Your task to perform on an android device: check the backup settings in the google photos Image 0: 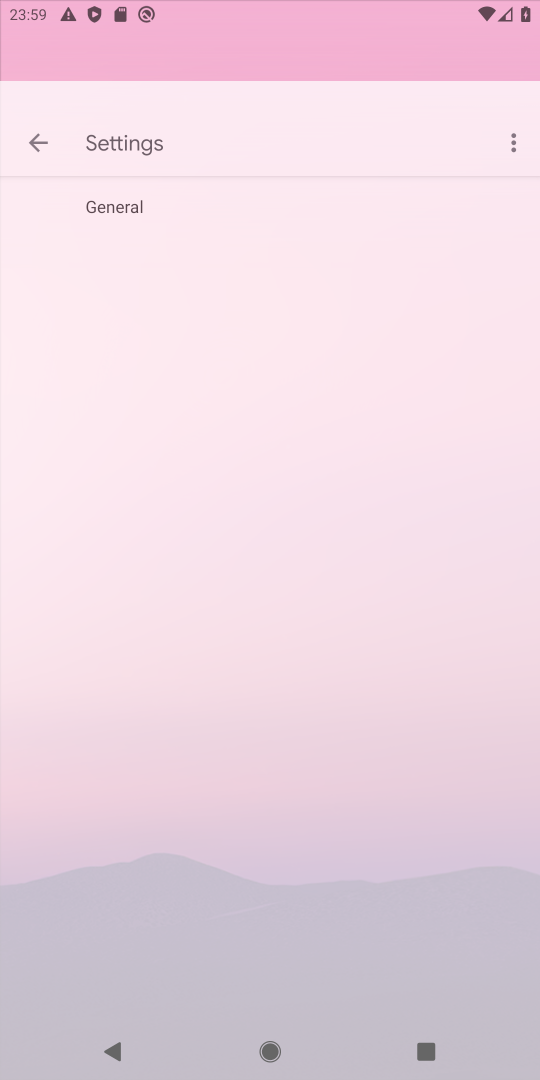
Step 0: click (256, 104)
Your task to perform on an android device: check the backup settings in the google photos Image 1: 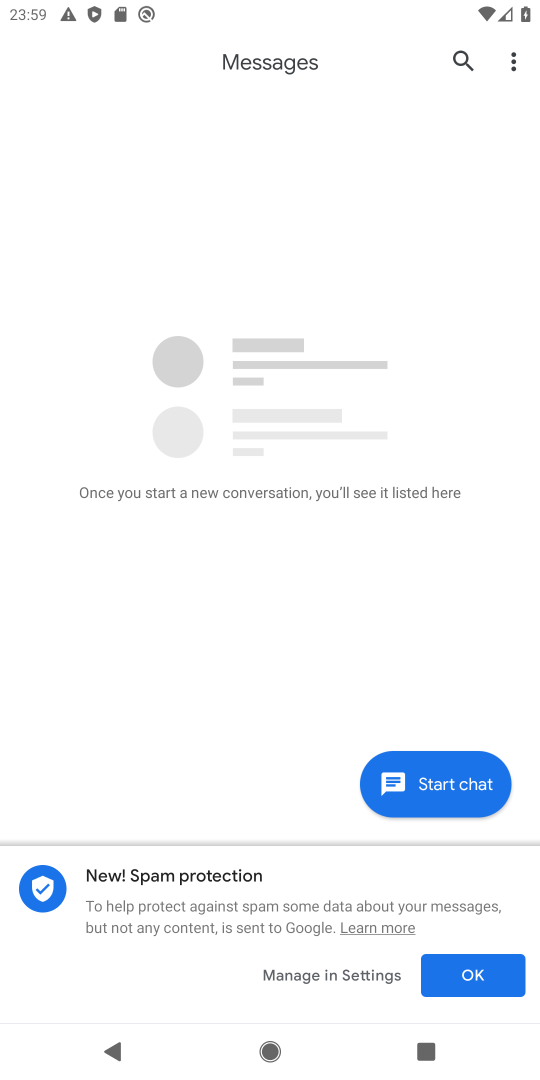
Step 1: press home button
Your task to perform on an android device: check the backup settings in the google photos Image 2: 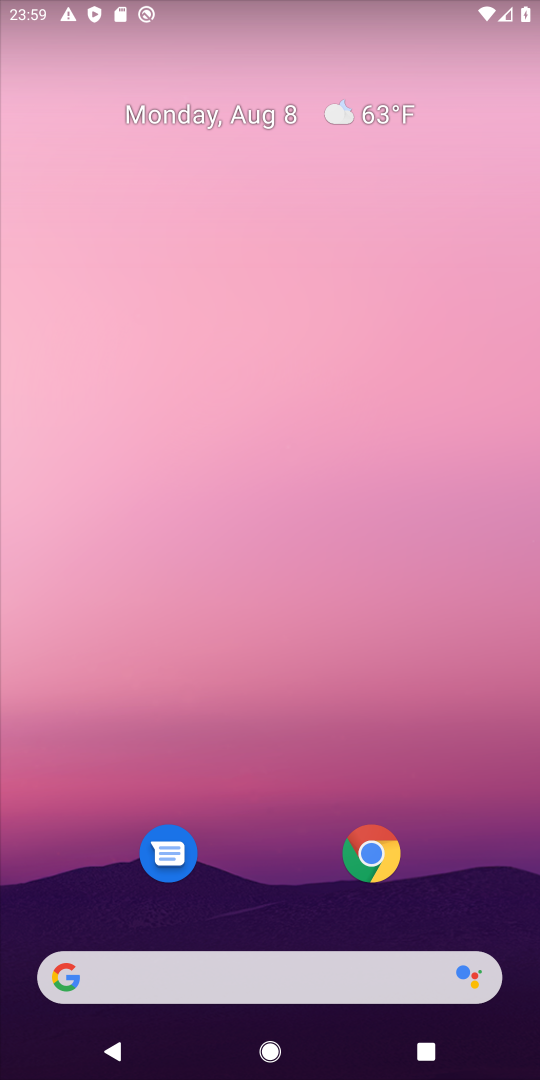
Step 2: drag from (226, 456) to (219, 231)
Your task to perform on an android device: check the backup settings in the google photos Image 3: 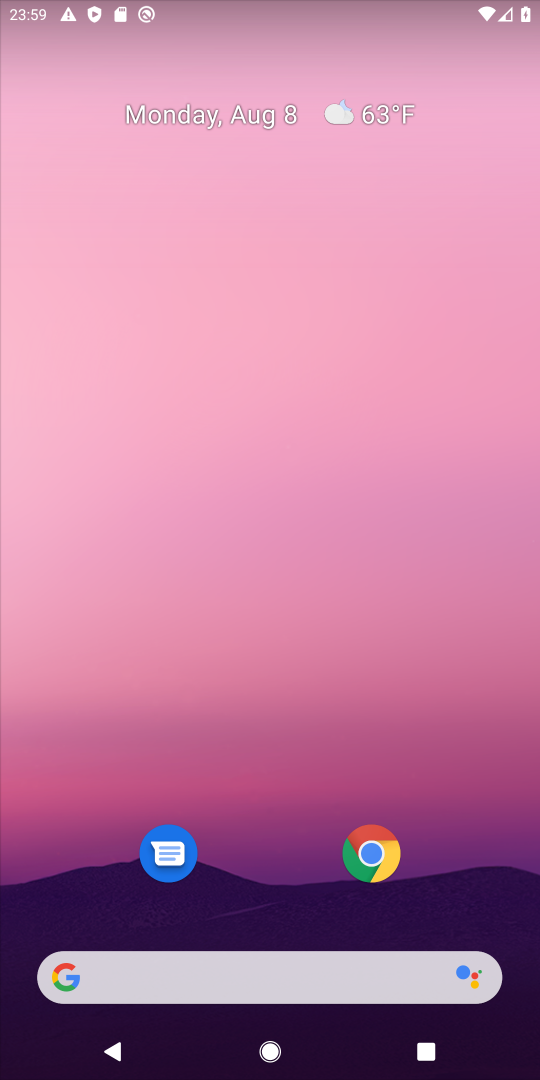
Step 3: drag from (271, 821) to (221, 157)
Your task to perform on an android device: check the backup settings in the google photos Image 4: 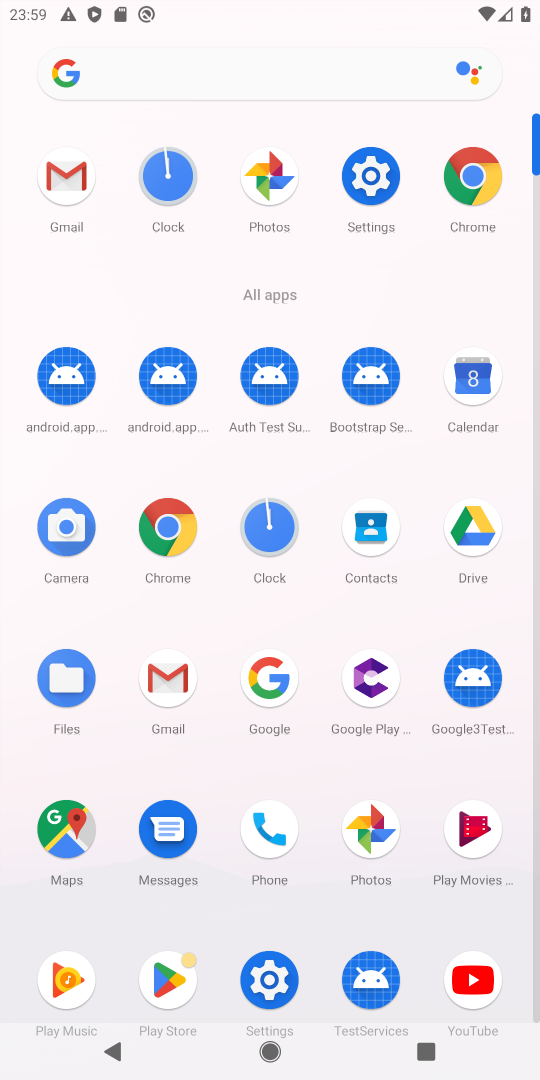
Step 4: click (263, 187)
Your task to perform on an android device: check the backup settings in the google photos Image 5: 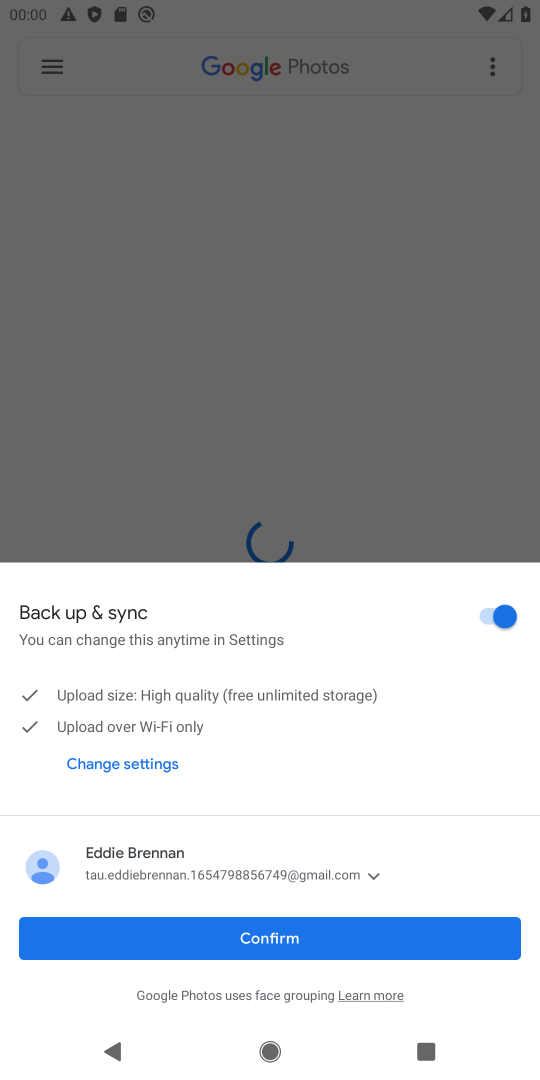
Step 5: click (331, 925)
Your task to perform on an android device: check the backup settings in the google photos Image 6: 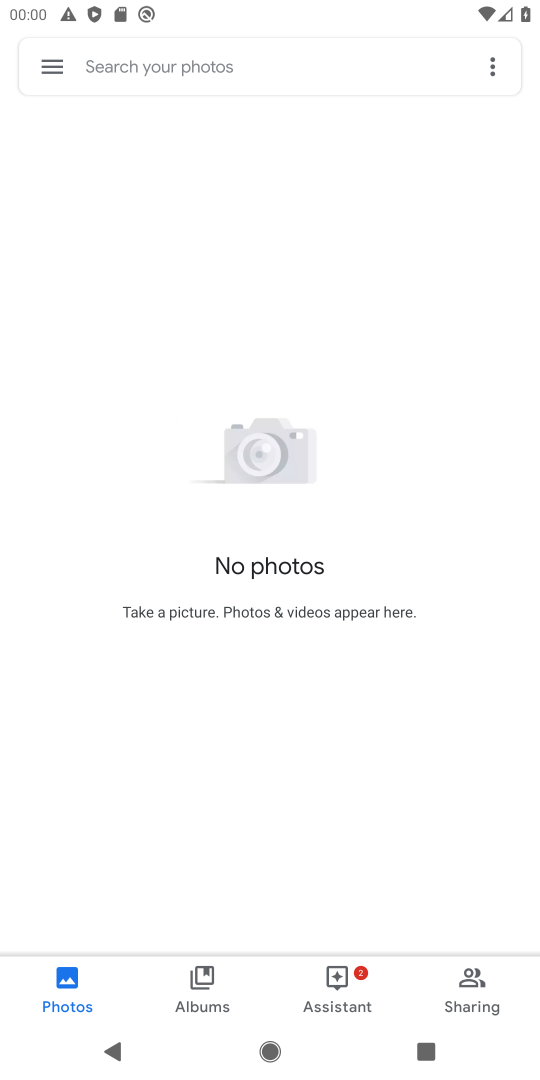
Step 6: click (47, 70)
Your task to perform on an android device: check the backup settings in the google photos Image 7: 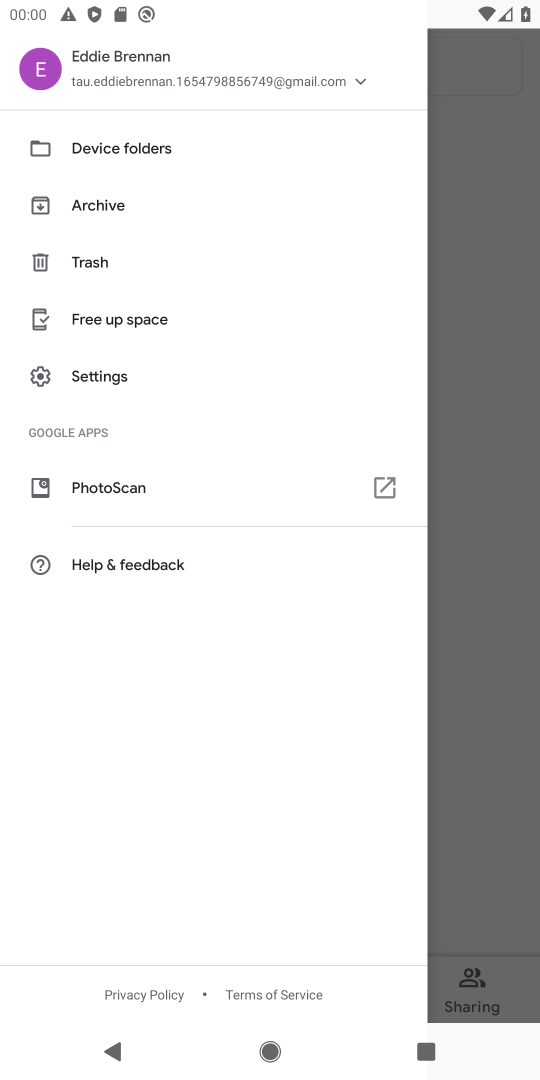
Step 7: click (56, 386)
Your task to perform on an android device: check the backup settings in the google photos Image 8: 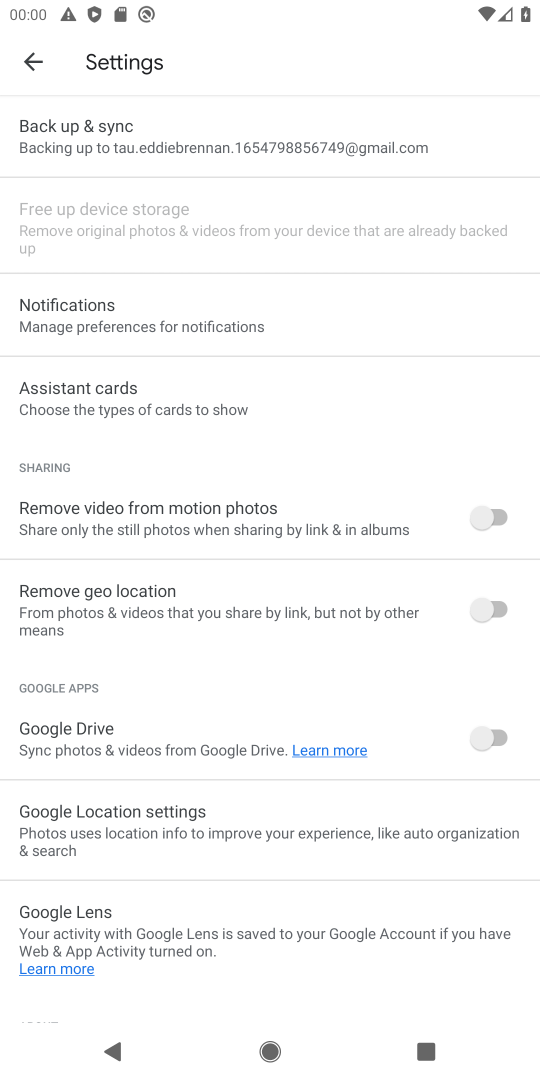
Step 8: click (169, 135)
Your task to perform on an android device: check the backup settings in the google photos Image 9: 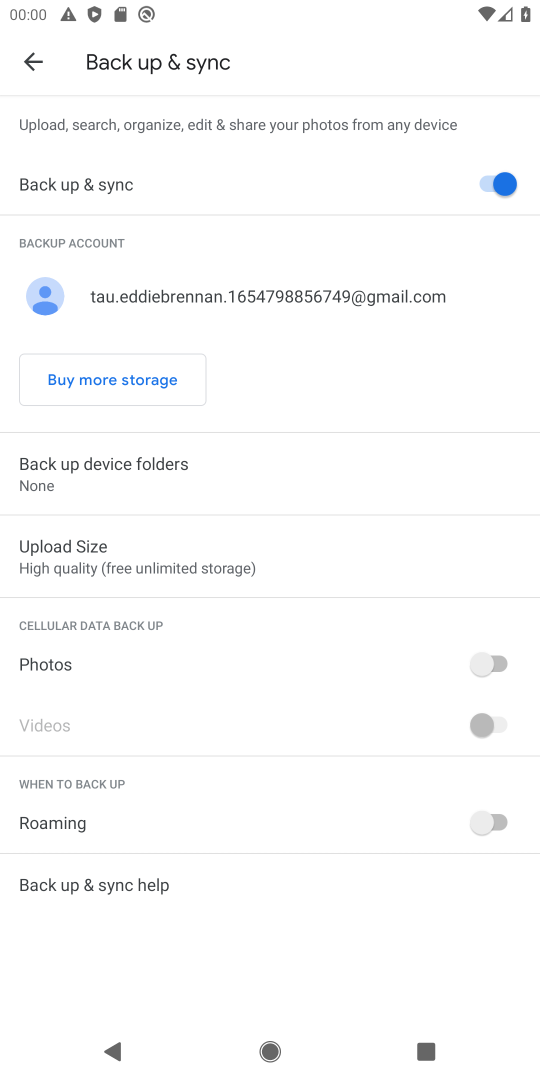
Step 9: task complete